Your task to perform on an android device: open wifi settings Image 0: 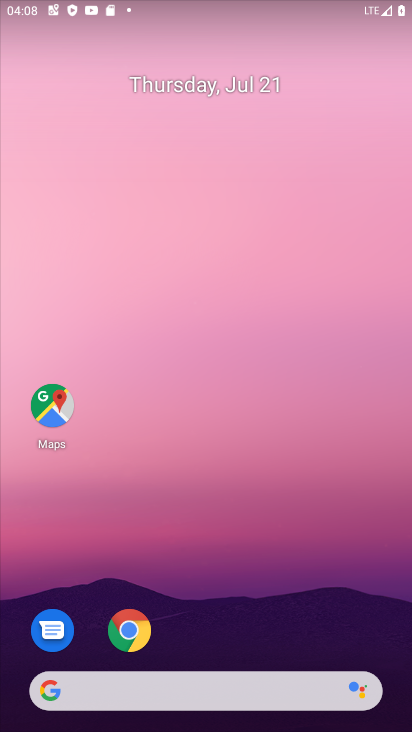
Step 0: drag from (197, 15) to (275, 551)
Your task to perform on an android device: open wifi settings Image 1: 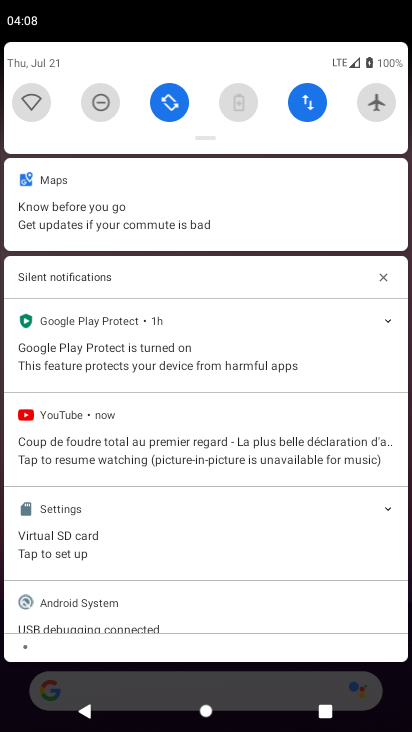
Step 1: click (43, 115)
Your task to perform on an android device: open wifi settings Image 2: 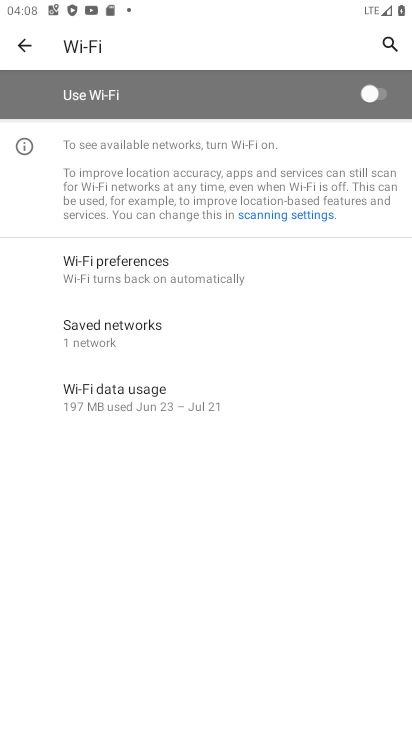
Step 2: task complete